Your task to perform on an android device: open the mobile data screen to see how much data has been used Image 0: 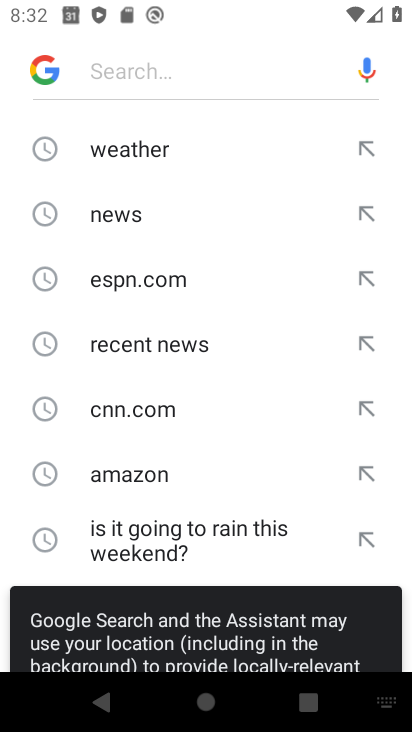
Step 0: press home button
Your task to perform on an android device: open the mobile data screen to see how much data has been used Image 1: 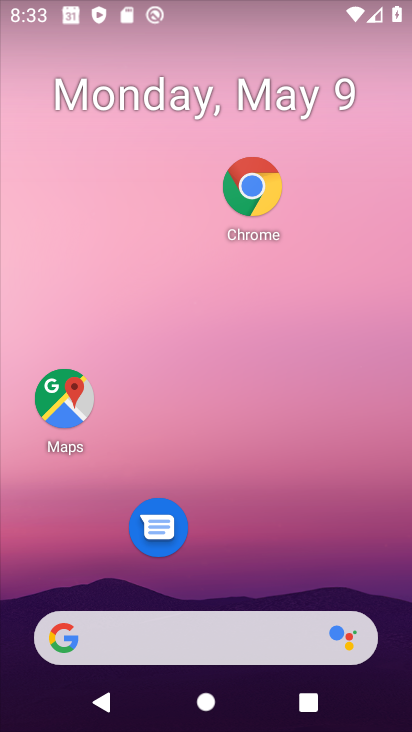
Step 1: drag from (222, 578) to (263, 12)
Your task to perform on an android device: open the mobile data screen to see how much data has been used Image 2: 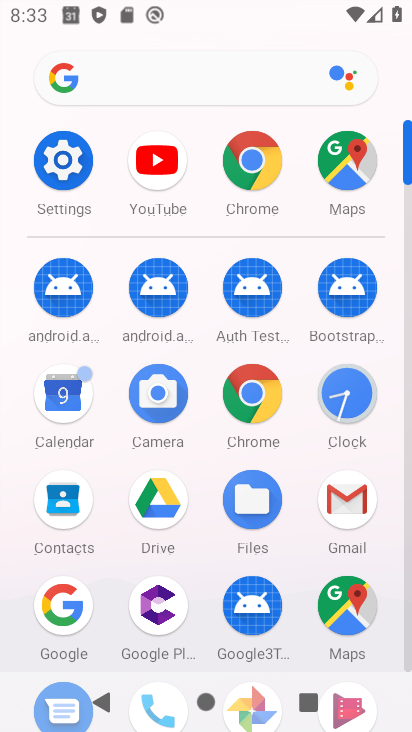
Step 2: click (58, 151)
Your task to perform on an android device: open the mobile data screen to see how much data has been used Image 3: 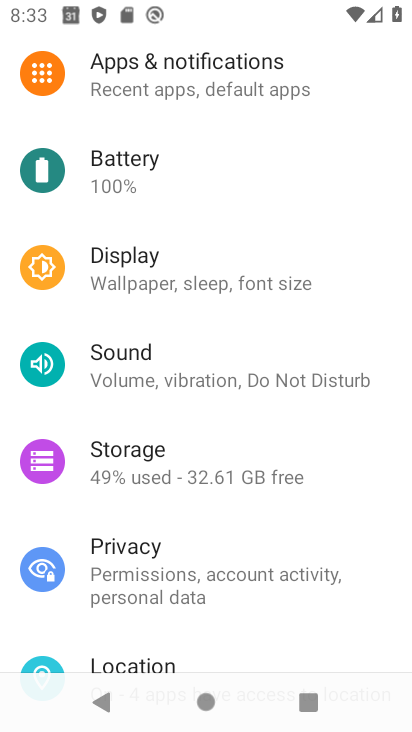
Step 3: drag from (191, 118) to (208, 650)
Your task to perform on an android device: open the mobile data screen to see how much data has been used Image 4: 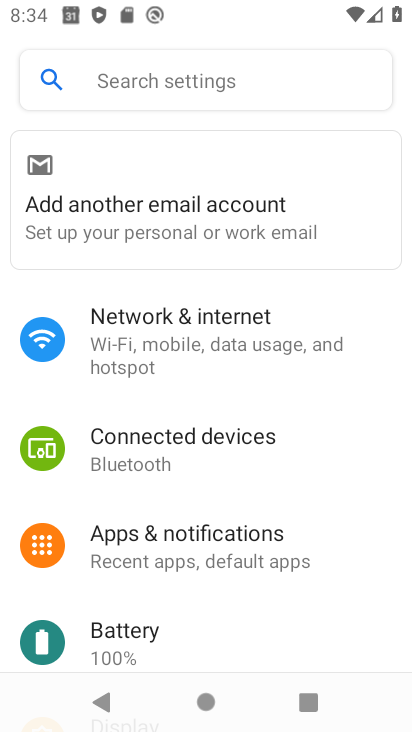
Step 4: click (172, 143)
Your task to perform on an android device: open the mobile data screen to see how much data has been used Image 5: 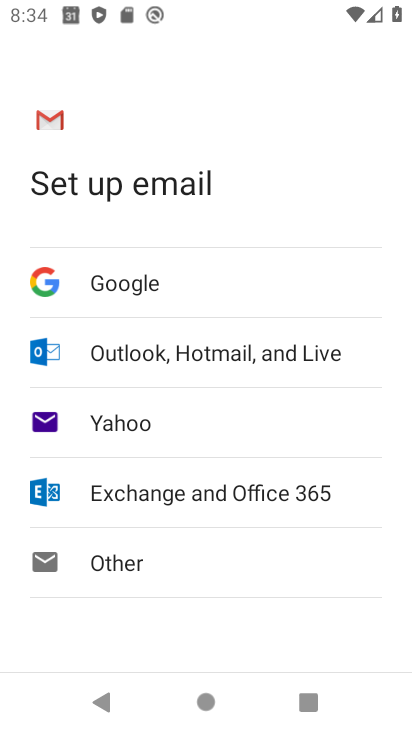
Step 5: press back button
Your task to perform on an android device: open the mobile data screen to see how much data has been used Image 6: 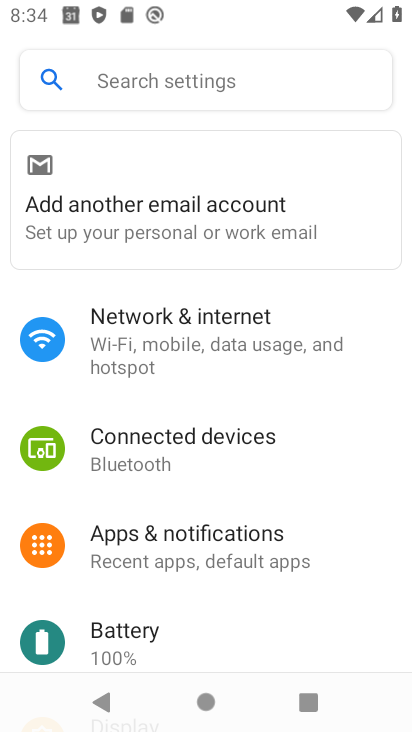
Step 6: click (187, 345)
Your task to perform on an android device: open the mobile data screen to see how much data has been used Image 7: 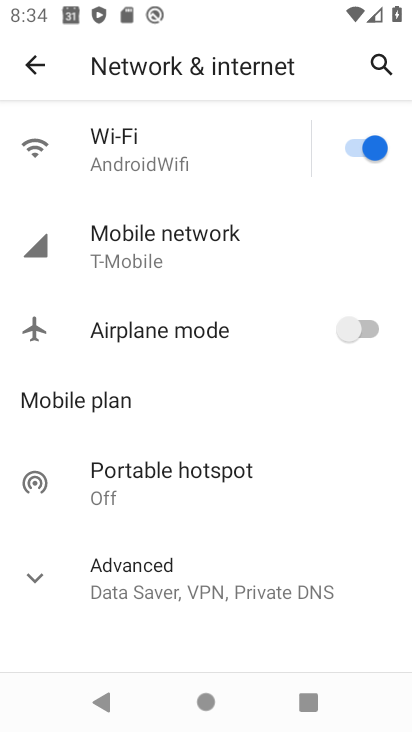
Step 7: click (175, 238)
Your task to perform on an android device: open the mobile data screen to see how much data has been used Image 8: 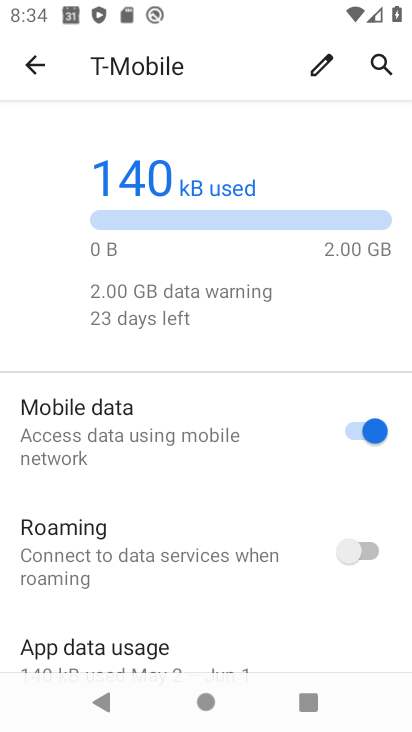
Step 8: click (180, 645)
Your task to perform on an android device: open the mobile data screen to see how much data has been used Image 9: 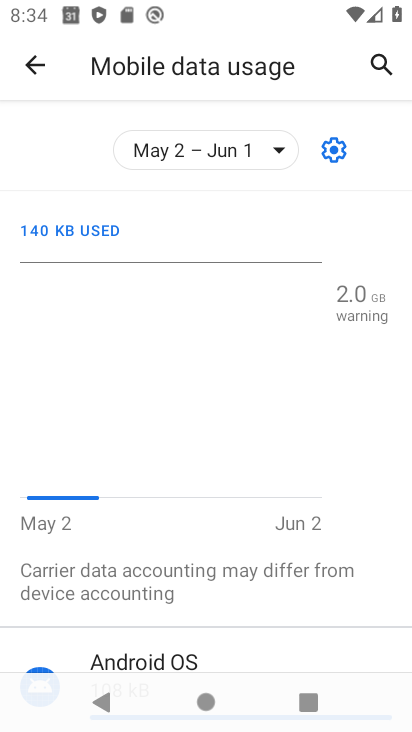
Step 9: task complete